Your task to perform on an android device: What's on my calendar tomorrow? Image 0: 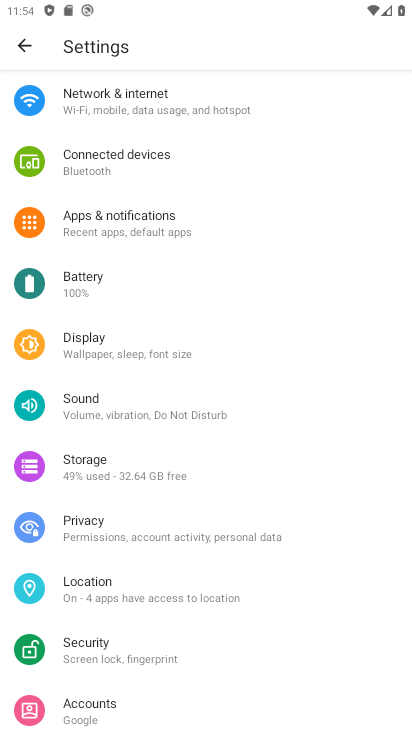
Step 0: press home button
Your task to perform on an android device: What's on my calendar tomorrow? Image 1: 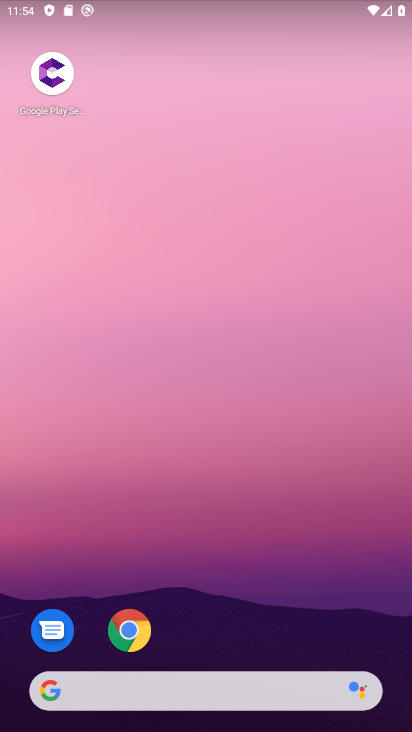
Step 1: drag from (398, 538) to (394, 356)
Your task to perform on an android device: What's on my calendar tomorrow? Image 2: 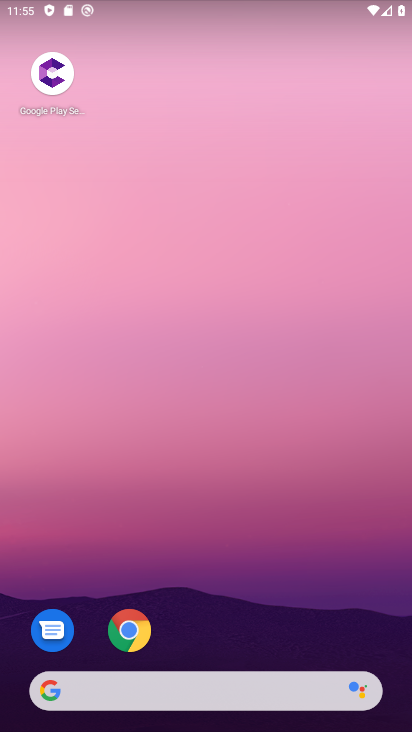
Step 2: drag from (397, 682) to (391, 337)
Your task to perform on an android device: What's on my calendar tomorrow? Image 3: 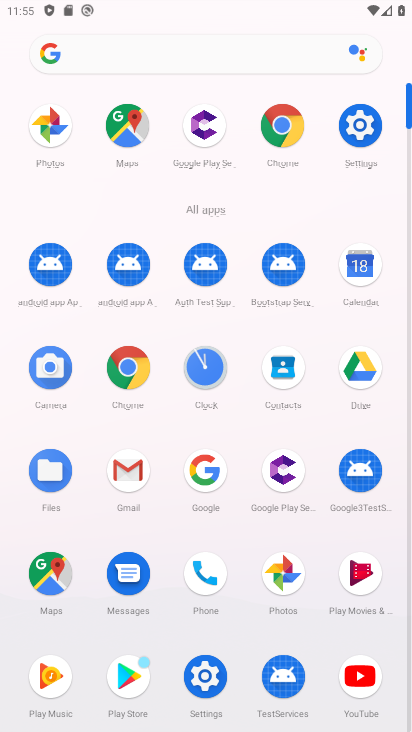
Step 3: click (374, 253)
Your task to perform on an android device: What's on my calendar tomorrow? Image 4: 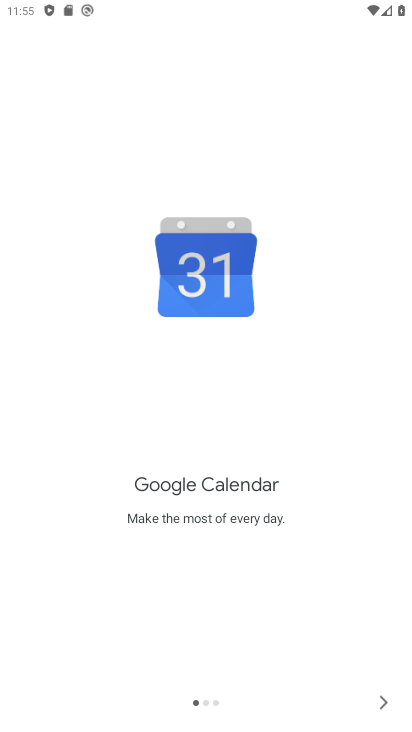
Step 4: click (388, 700)
Your task to perform on an android device: What's on my calendar tomorrow? Image 5: 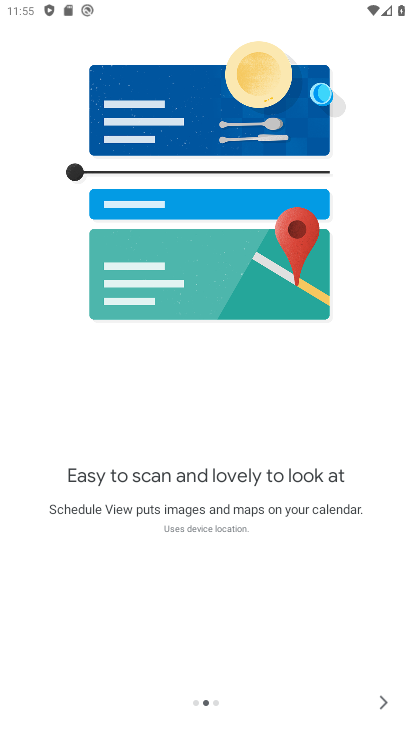
Step 5: click (388, 700)
Your task to perform on an android device: What's on my calendar tomorrow? Image 6: 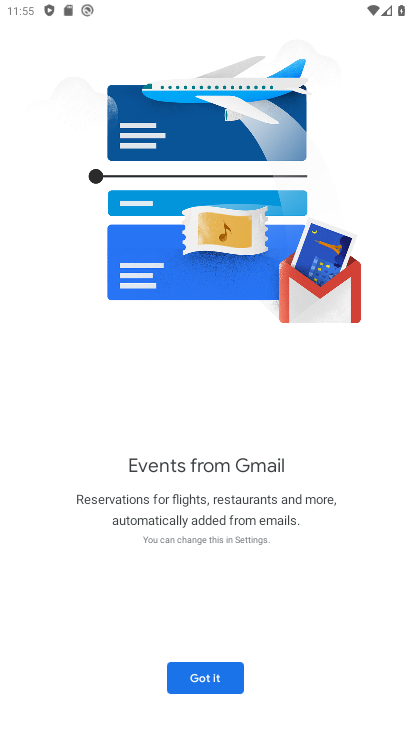
Step 6: click (220, 676)
Your task to perform on an android device: What's on my calendar tomorrow? Image 7: 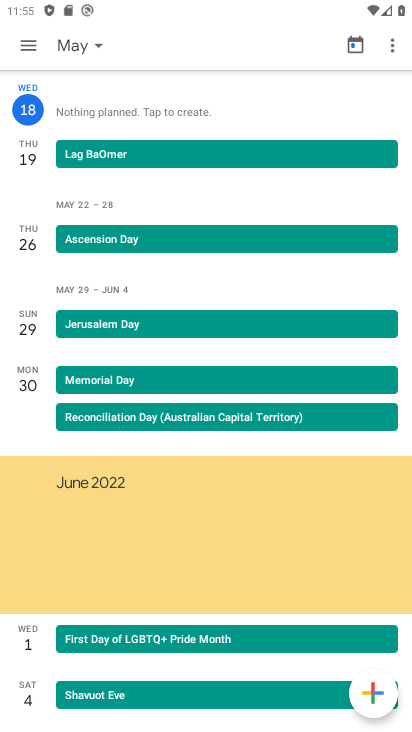
Step 7: drag from (216, 396) to (204, 434)
Your task to perform on an android device: What's on my calendar tomorrow? Image 8: 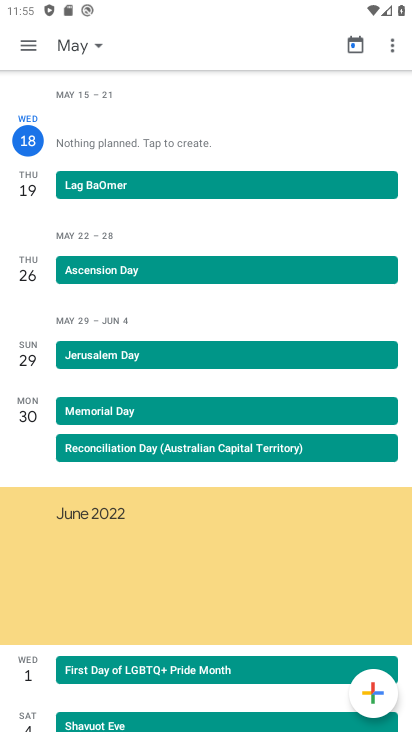
Step 8: click (94, 37)
Your task to perform on an android device: What's on my calendar tomorrow? Image 9: 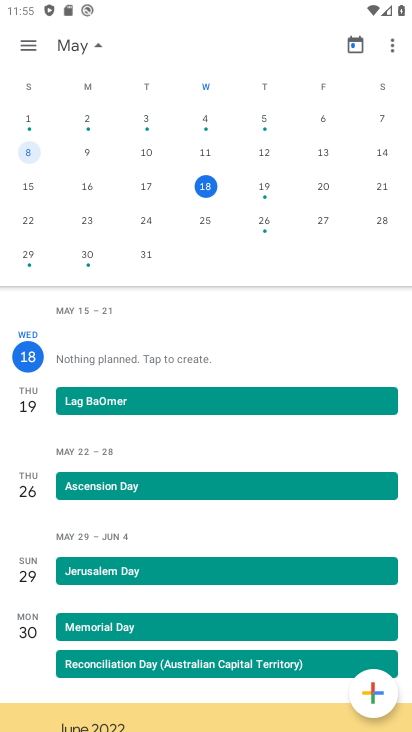
Step 9: click (263, 187)
Your task to perform on an android device: What's on my calendar tomorrow? Image 10: 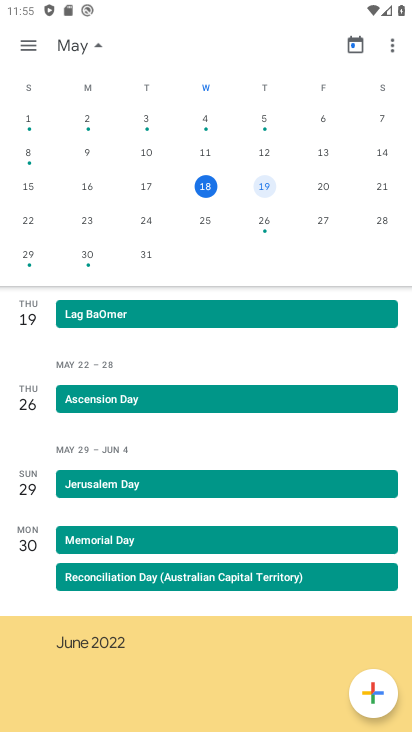
Step 10: task complete